Your task to perform on an android device: open the mobile data screen to see how much data has been used Image 0: 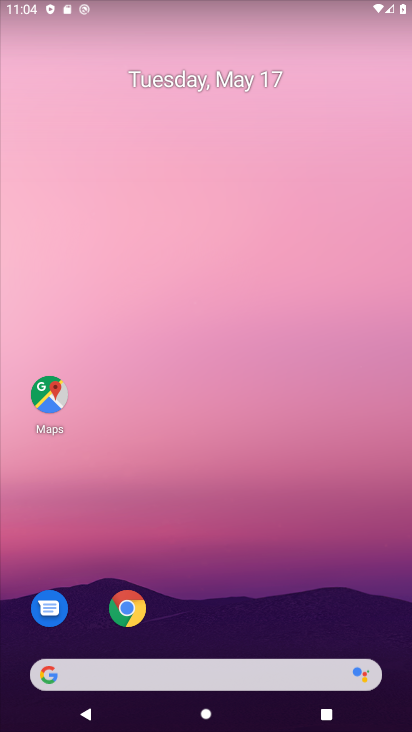
Step 0: drag from (235, 410) to (28, 0)
Your task to perform on an android device: open the mobile data screen to see how much data has been used Image 1: 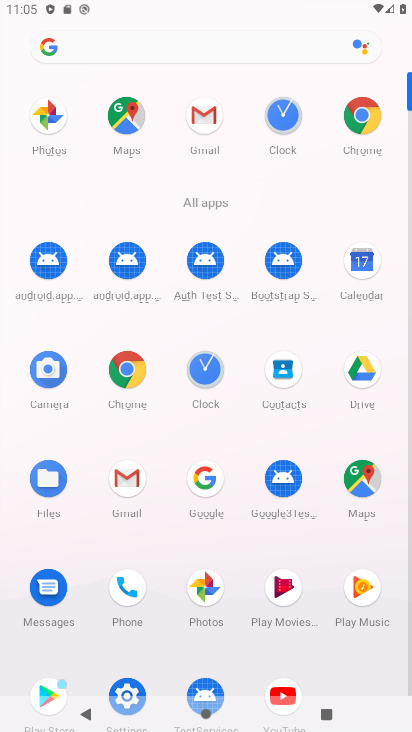
Step 1: drag from (209, 526) to (254, 332)
Your task to perform on an android device: open the mobile data screen to see how much data has been used Image 2: 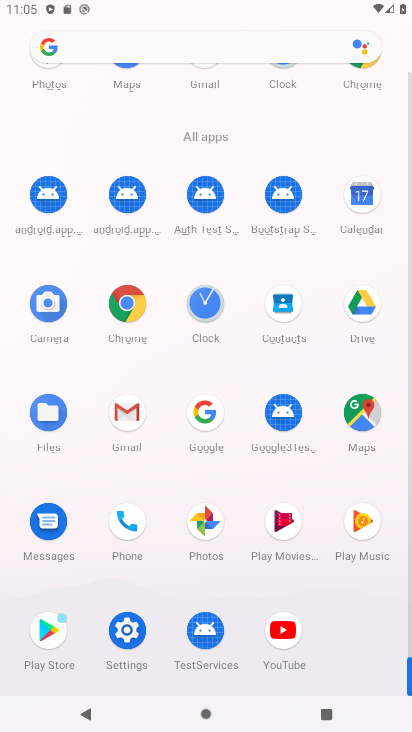
Step 2: click (127, 640)
Your task to perform on an android device: open the mobile data screen to see how much data has been used Image 3: 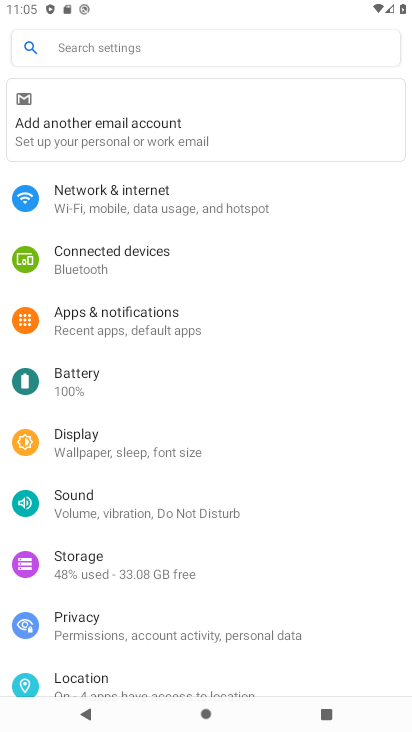
Step 3: click (157, 198)
Your task to perform on an android device: open the mobile data screen to see how much data has been used Image 4: 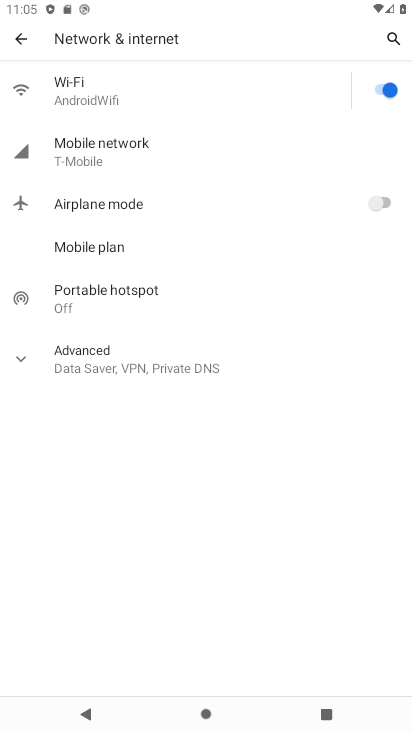
Step 4: click (114, 148)
Your task to perform on an android device: open the mobile data screen to see how much data has been used Image 5: 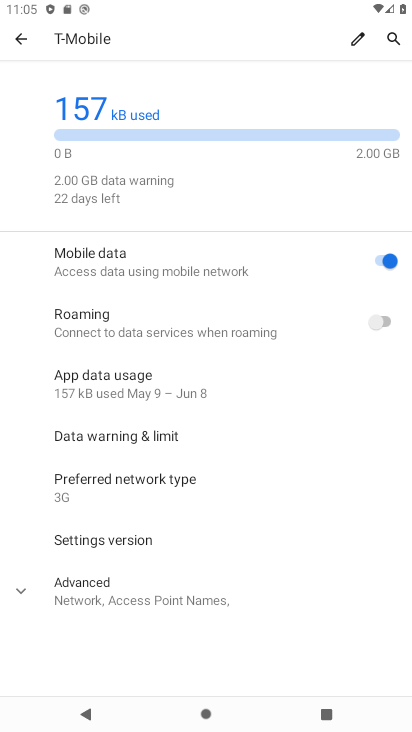
Step 5: click (164, 414)
Your task to perform on an android device: open the mobile data screen to see how much data has been used Image 6: 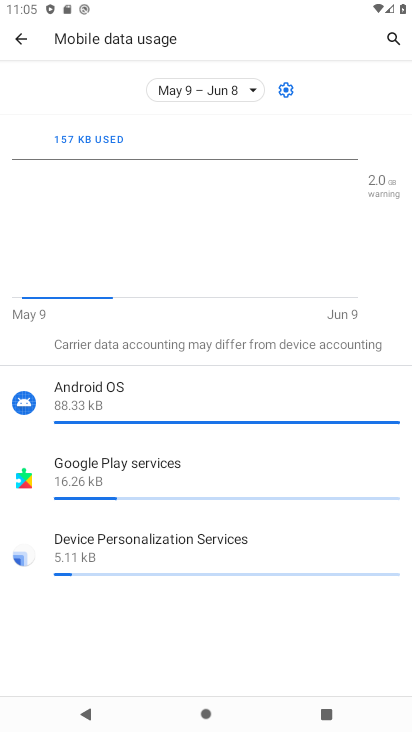
Step 6: task complete